Your task to perform on an android device: turn off notifications in google photos Image 0: 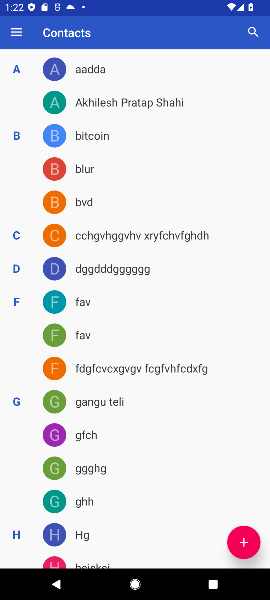
Step 0: task complete